Your task to perform on an android device: What's the latest video from Gameranx? Image 0: 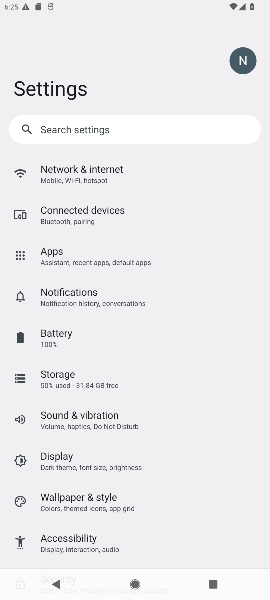
Step 0: press home button
Your task to perform on an android device: What's the latest video from Gameranx? Image 1: 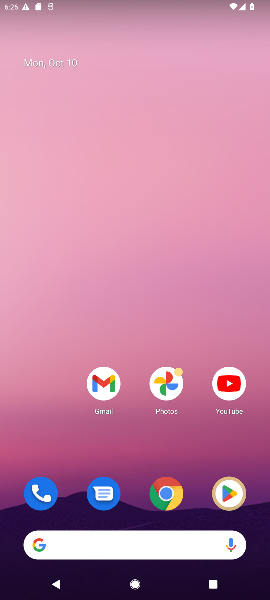
Step 1: drag from (132, 512) to (198, 62)
Your task to perform on an android device: What's the latest video from Gameranx? Image 2: 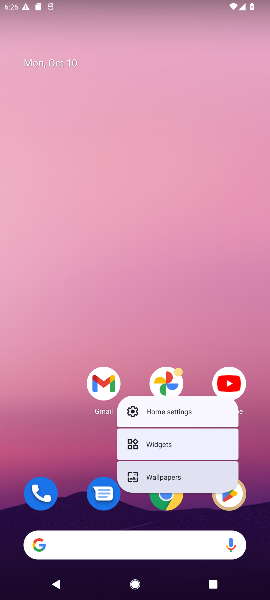
Step 2: click (136, 507)
Your task to perform on an android device: What's the latest video from Gameranx? Image 3: 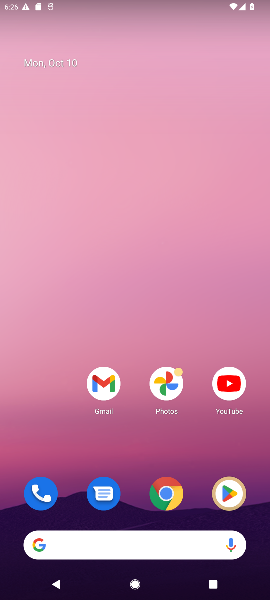
Step 3: drag from (136, 507) to (150, 176)
Your task to perform on an android device: What's the latest video from Gameranx? Image 4: 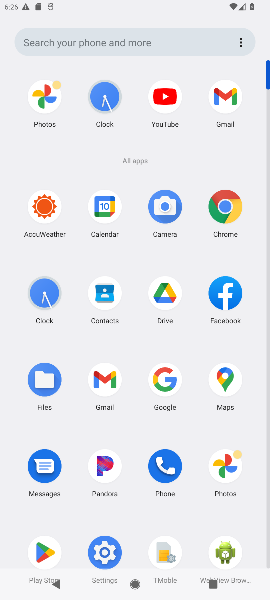
Step 4: click (44, 555)
Your task to perform on an android device: What's the latest video from Gameranx? Image 5: 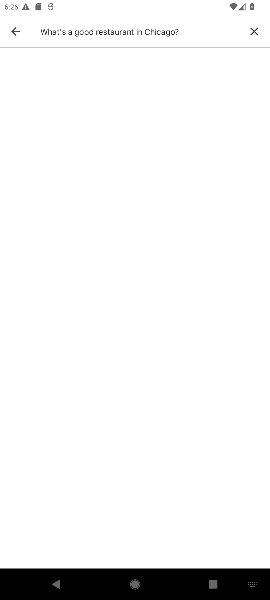
Step 5: click (255, 28)
Your task to perform on an android device: What's the latest video from Gameranx? Image 6: 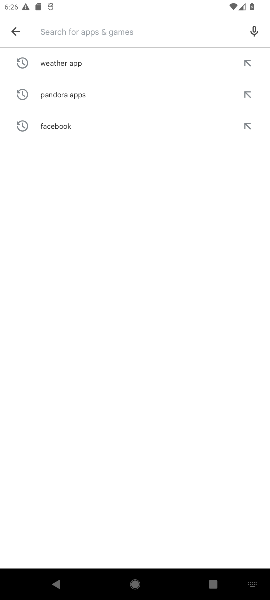
Step 6: type " latest video from Gameranx"
Your task to perform on an android device: What's the latest video from Gameranx? Image 7: 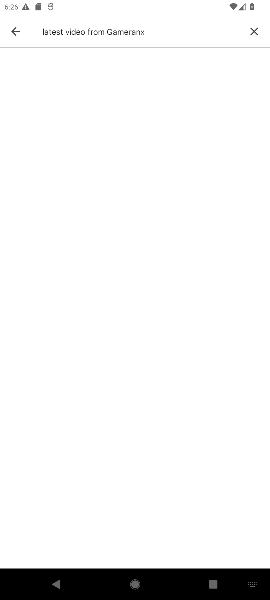
Step 7: click (16, 29)
Your task to perform on an android device: What's the latest video from Gameranx? Image 8: 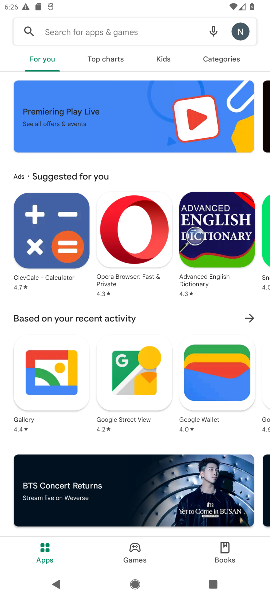
Step 8: click (82, 27)
Your task to perform on an android device: What's the latest video from Gameranx? Image 9: 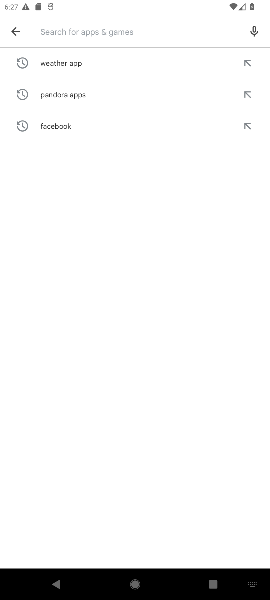
Step 9: type " latest video from Gameranx"
Your task to perform on an android device: What's the latest video from Gameranx? Image 10: 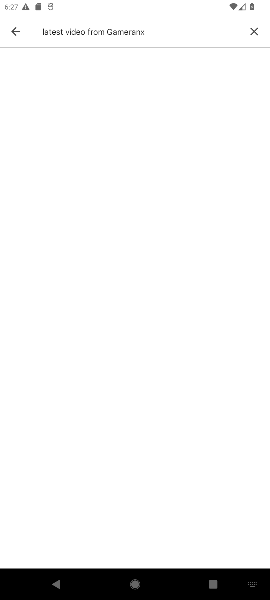
Step 10: task complete